Your task to perform on an android device: check the backup settings in the google photos Image 0: 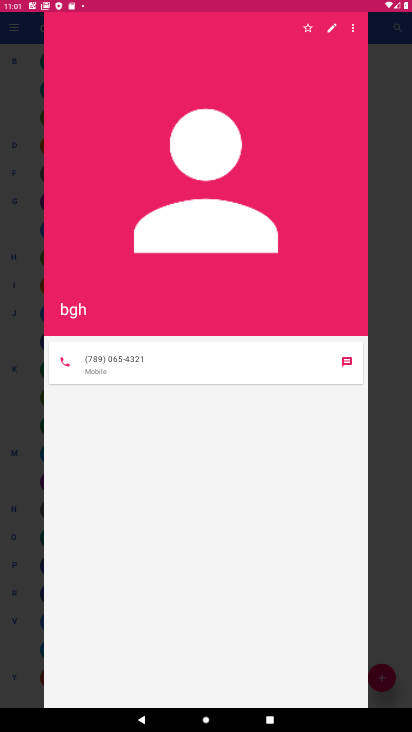
Step 0: press home button
Your task to perform on an android device: check the backup settings in the google photos Image 1: 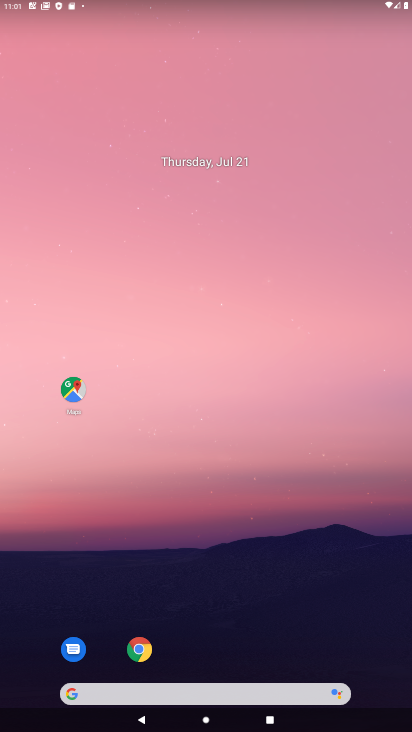
Step 1: drag from (306, 633) to (235, 171)
Your task to perform on an android device: check the backup settings in the google photos Image 2: 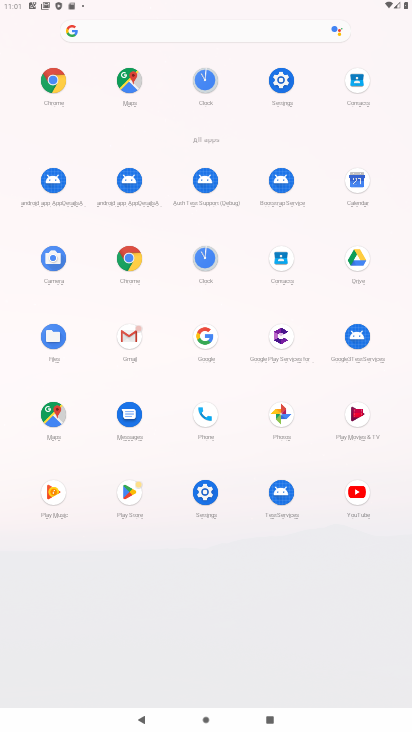
Step 2: click (287, 422)
Your task to perform on an android device: check the backup settings in the google photos Image 3: 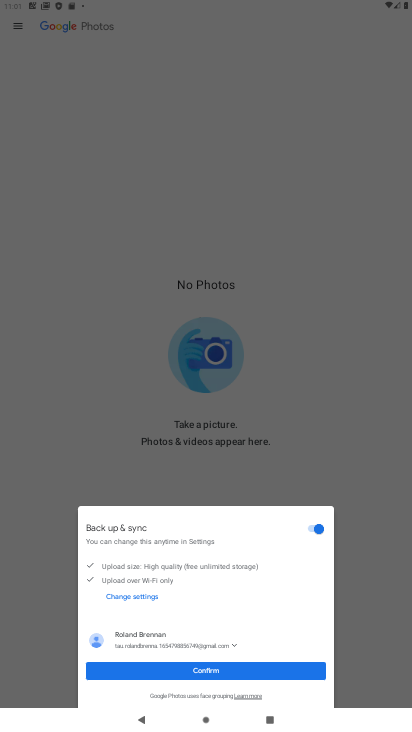
Step 3: click (177, 678)
Your task to perform on an android device: check the backup settings in the google photos Image 4: 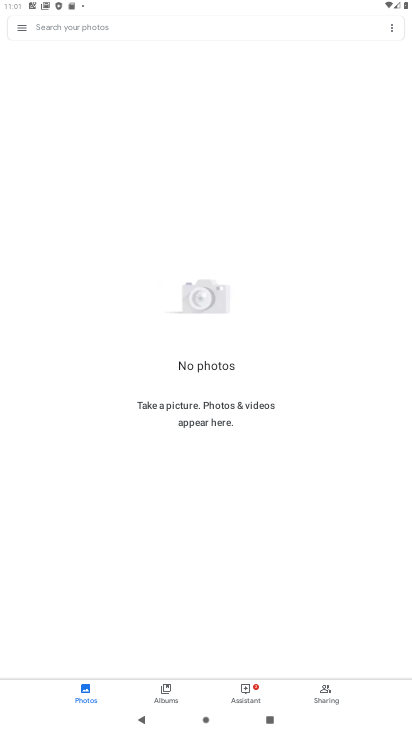
Step 4: click (21, 24)
Your task to perform on an android device: check the backup settings in the google photos Image 5: 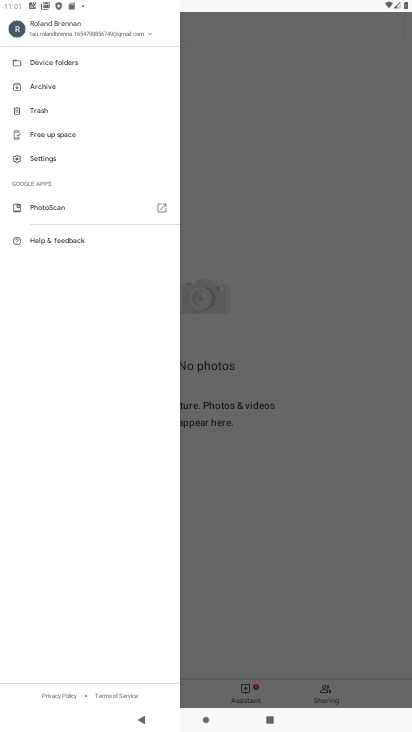
Step 5: click (45, 154)
Your task to perform on an android device: check the backup settings in the google photos Image 6: 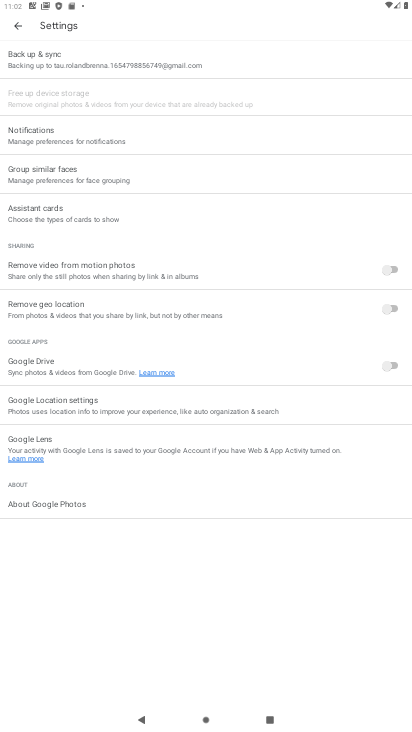
Step 6: click (82, 51)
Your task to perform on an android device: check the backup settings in the google photos Image 7: 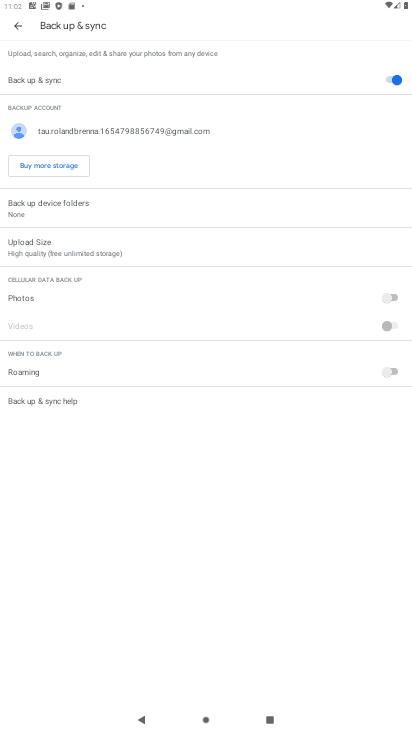
Step 7: task complete